Your task to perform on an android device: star an email in the gmail app Image 0: 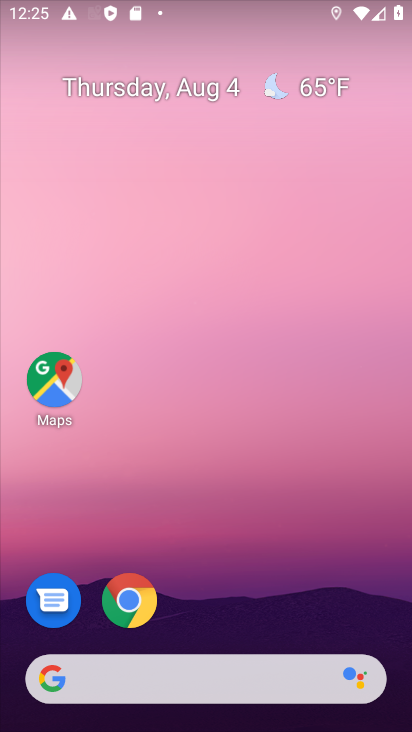
Step 0: drag from (216, 614) to (377, 508)
Your task to perform on an android device: star an email in the gmail app Image 1: 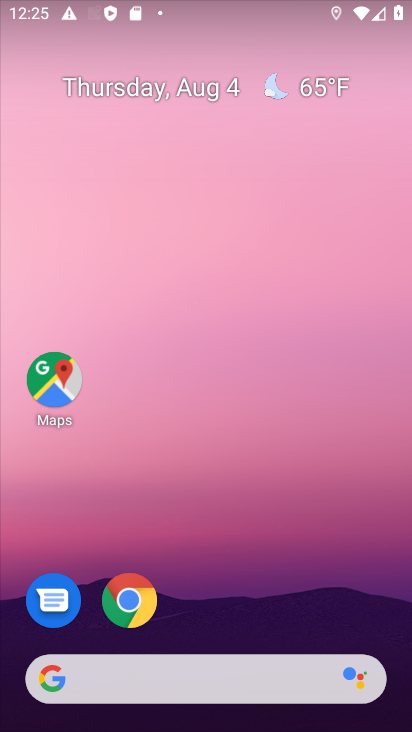
Step 1: drag from (244, 636) to (160, 126)
Your task to perform on an android device: star an email in the gmail app Image 2: 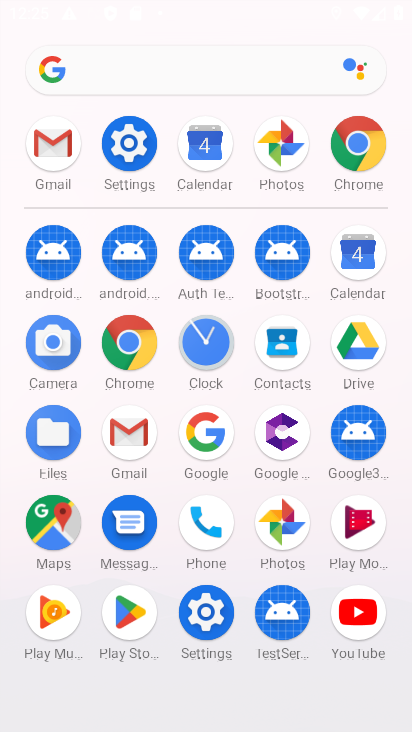
Step 2: click (136, 429)
Your task to perform on an android device: star an email in the gmail app Image 3: 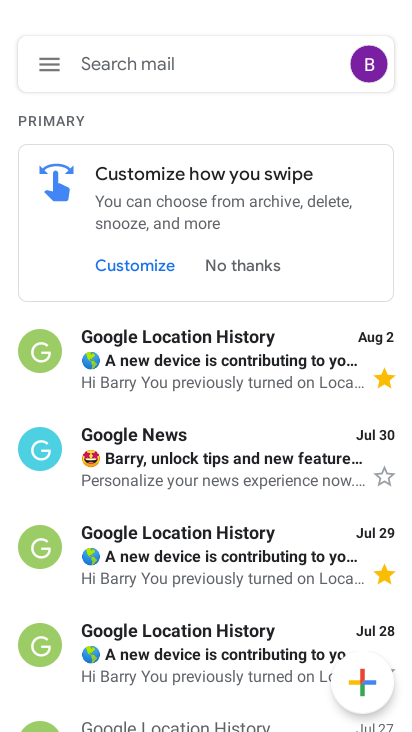
Step 3: click (378, 473)
Your task to perform on an android device: star an email in the gmail app Image 4: 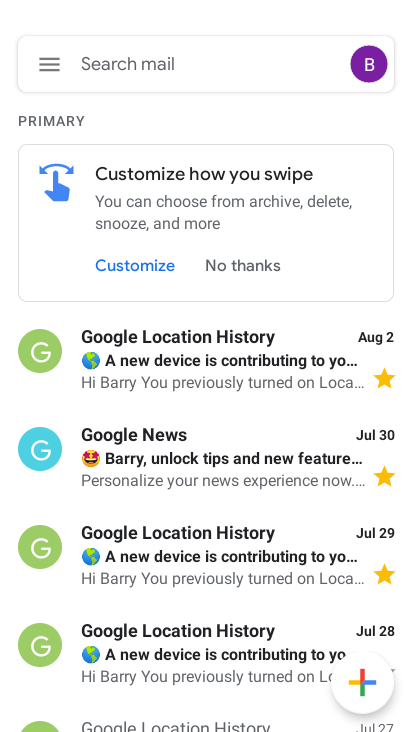
Step 4: task complete